Your task to perform on an android device: Go to calendar. Show me events next week Image 0: 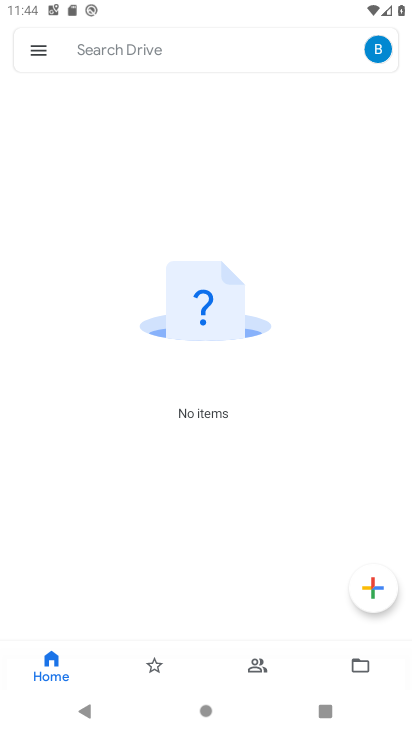
Step 0: press back button
Your task to perform on an android device: Go to calendar. Show me events next week Image 1: 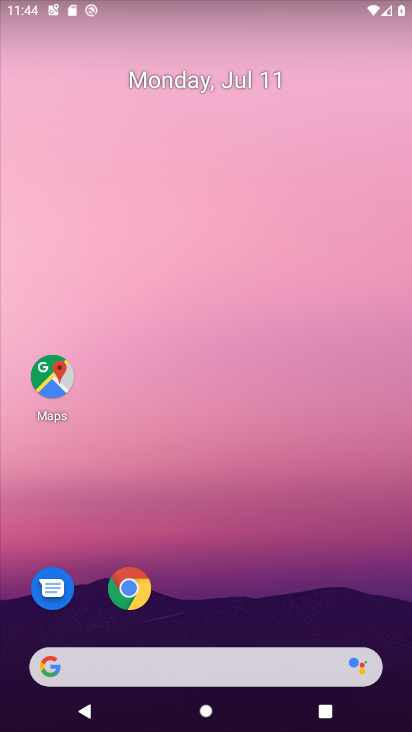
Step 1: drag from (264, 659) to (235, 211)
Your task to perform on an android device: Go to calendar. Show me events next week Image 2: 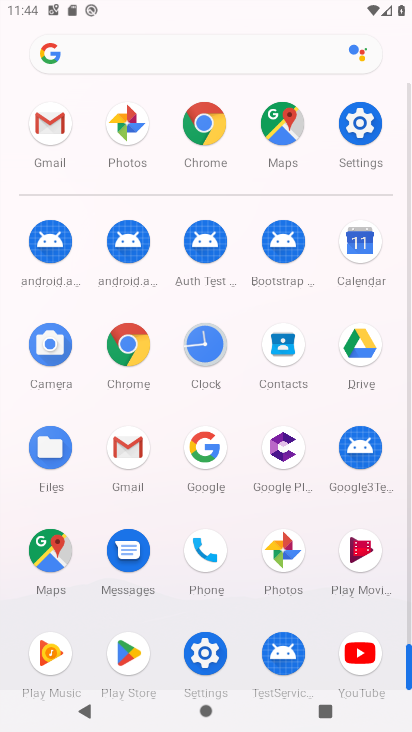
Step 2: click (360, 242)
Your task to perform on an android device: Go to calendar. Show me events next week Image 3: 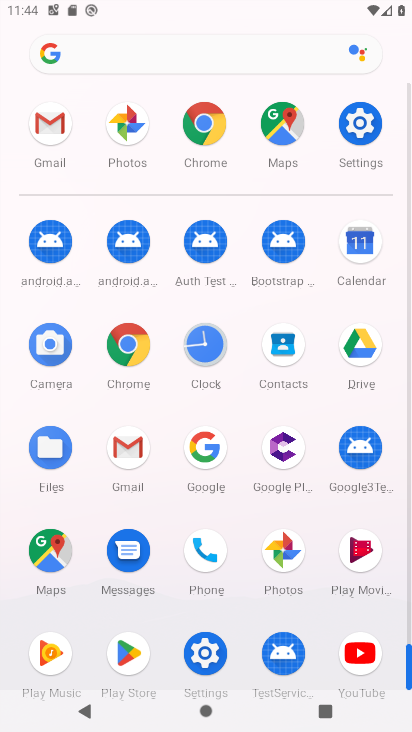
Step 3: click (362, 253)
Your task to perform on an android device: Go to calendar. Show me events next week Image 4: 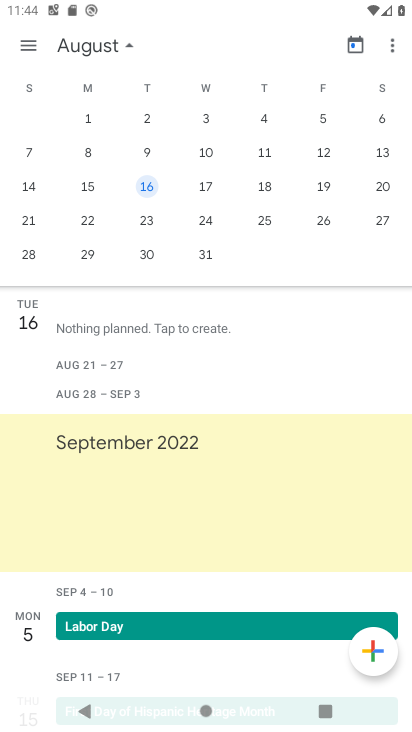
Step 4: drag from (88, 161) to (393, 204)
Your task to perform on an android device: Go to calendar. Show me events next week Image 5: 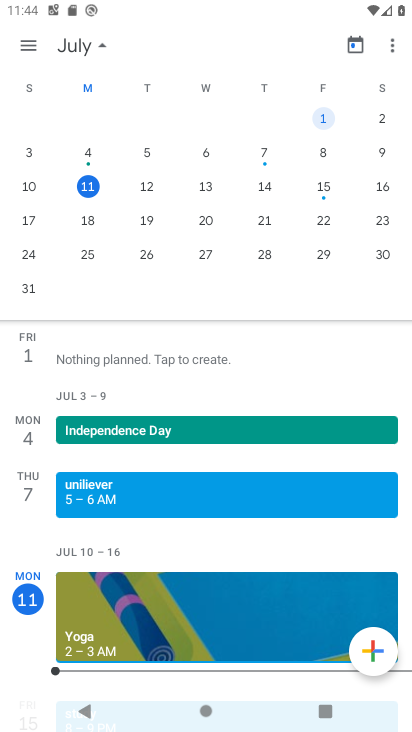
Step 5: click (151, 221)
Your task to perform on an android device: Go to calendar. Show me events next week Image 6: 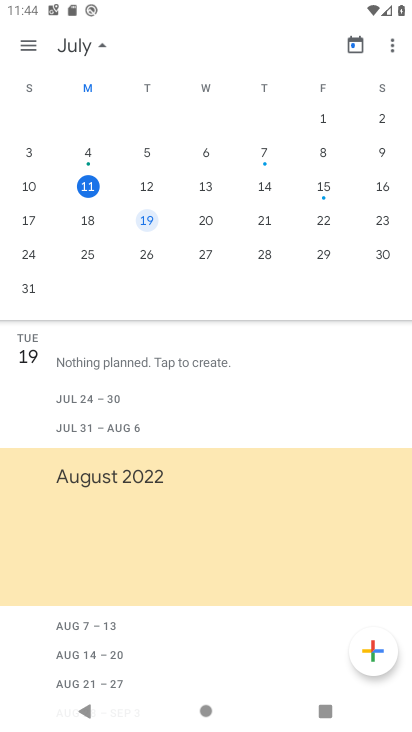
Step 6: click (144, 217)
Your task to perform on an android device: Go to calendar. Show me events next week Image 7: 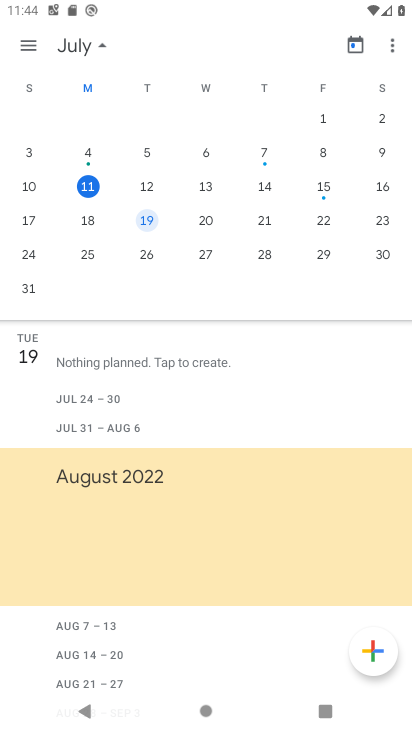
Step 7: click (144, 217)
Your task to perform on an android device: Go to calendar. Show me events next week Image 8: 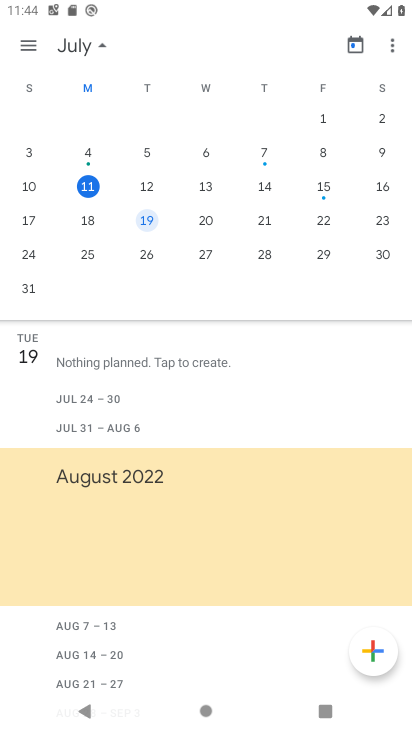
Step 8: click (144, 217)
Your task to perform on an android device: Go to calendar. Show me events next week Image 9: 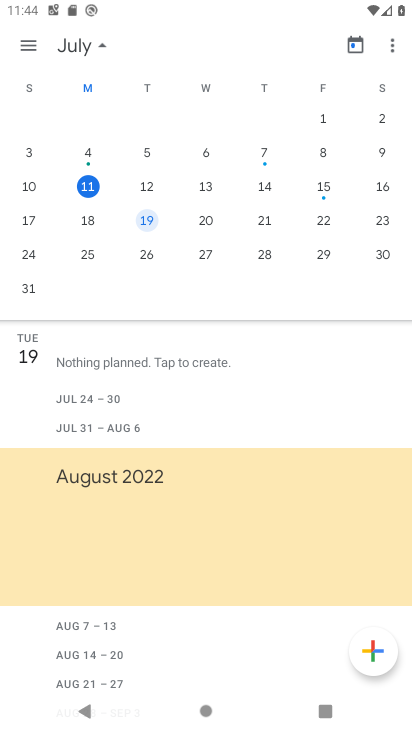
Step 9: click (142, 217)
Your task to perform on an android device: Go to calendar. Show me events next week Image 10: 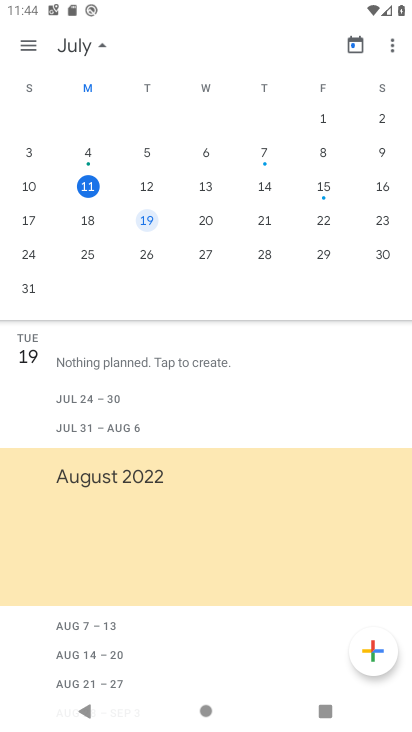
Step 10: task complete